Your task to perform on an android device: Show me productivity apps on the Play Store Image 0: 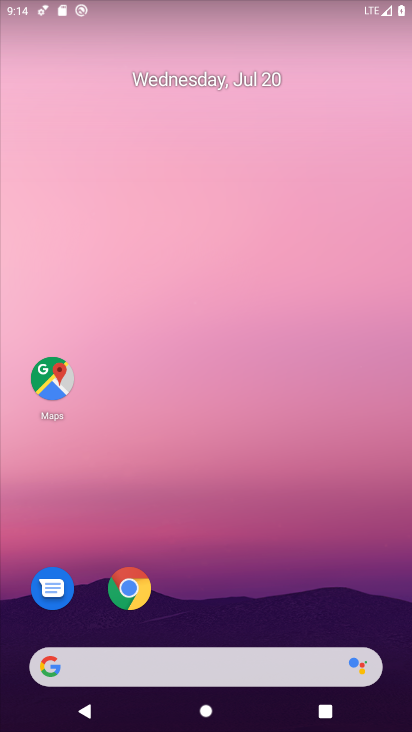
Step 0: drag from (213, 626) to (222, 70)
Your task to perform on an android device: Show me productivity apps on the Play Store Image 1: 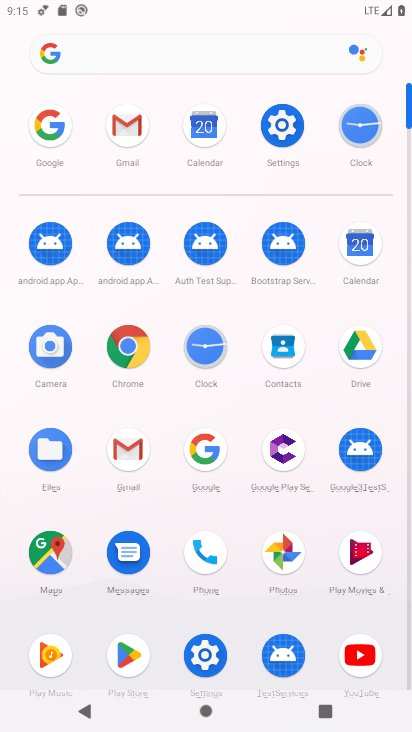
Step 1: click (125, 647)
Your task to perform on an android device: Show me productivity apps on the Play Store Image 2: 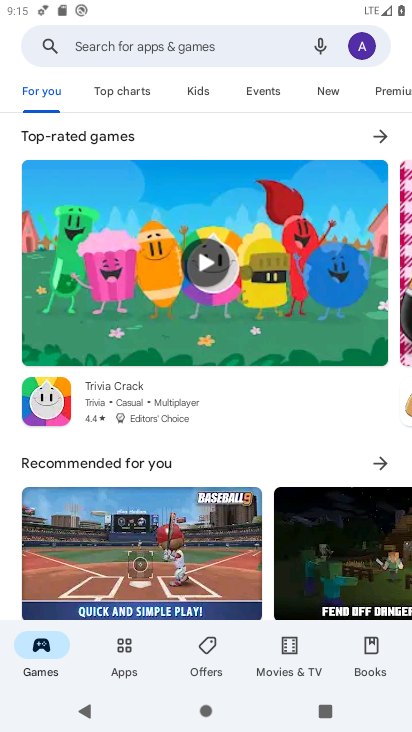
Step 2: task complete